Your task to perform on an android device: Go to Google maps Image 0: 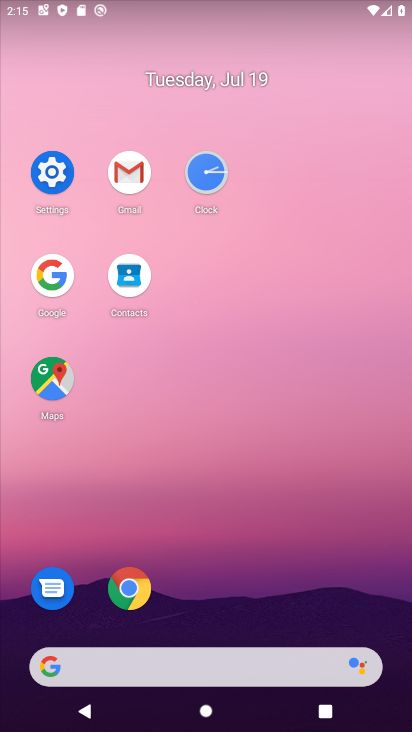
Step 0: click (65, 375)
Your task to perform on an android device: Go to Google maps Image 1: 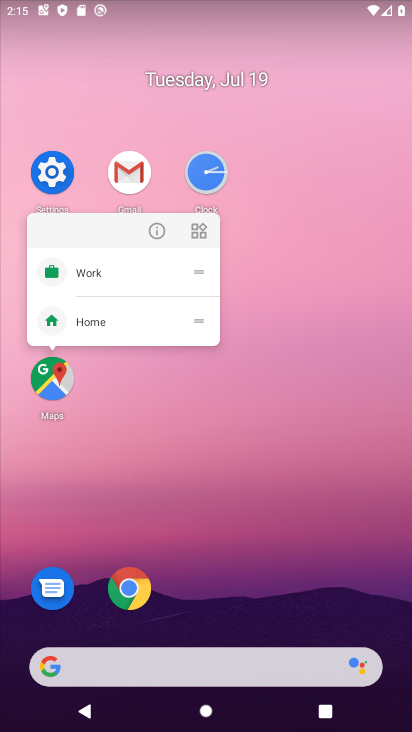
Step 1: click (60, 373)
Your task to perform on an android device: Go to Google maps Image 2: 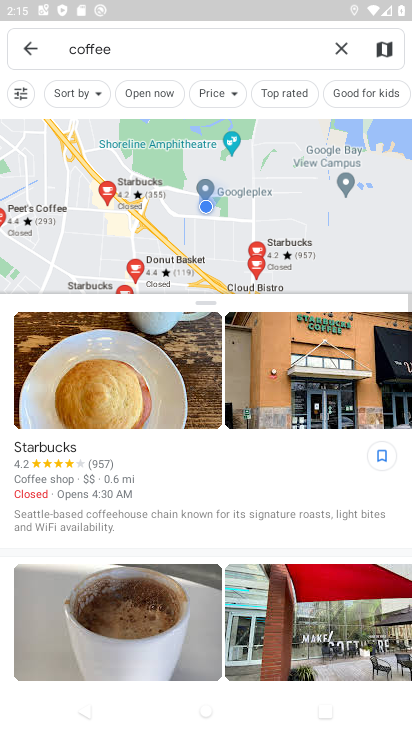
Step 2: task complete